Your task to perform on an android device: What's the price of the Galaxy phone? Image 0: 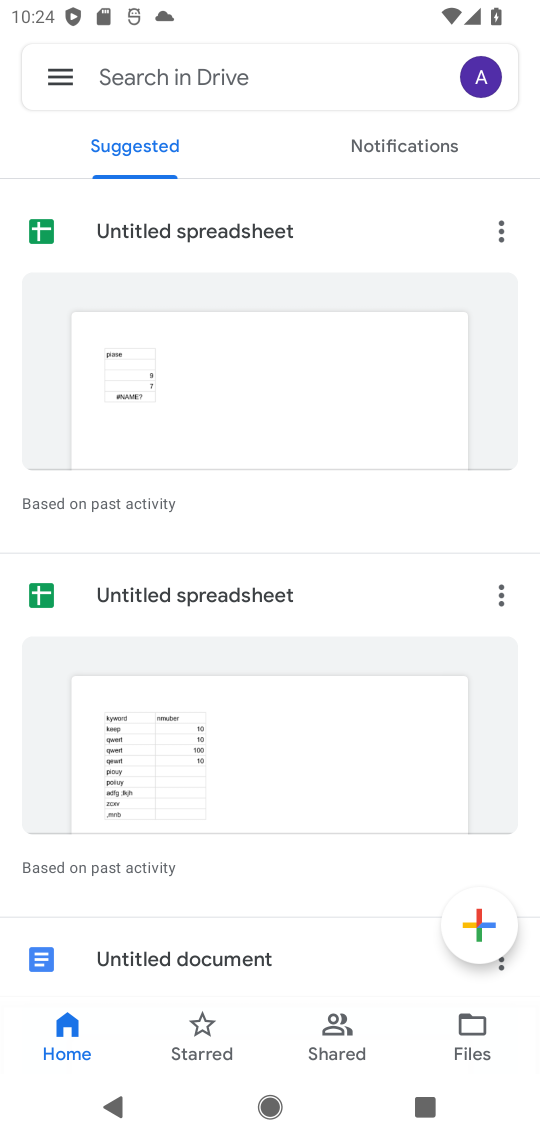
Step 0: press home button
Your task to perform on an android device: What's the price of the Galaxy phone? Image 1: 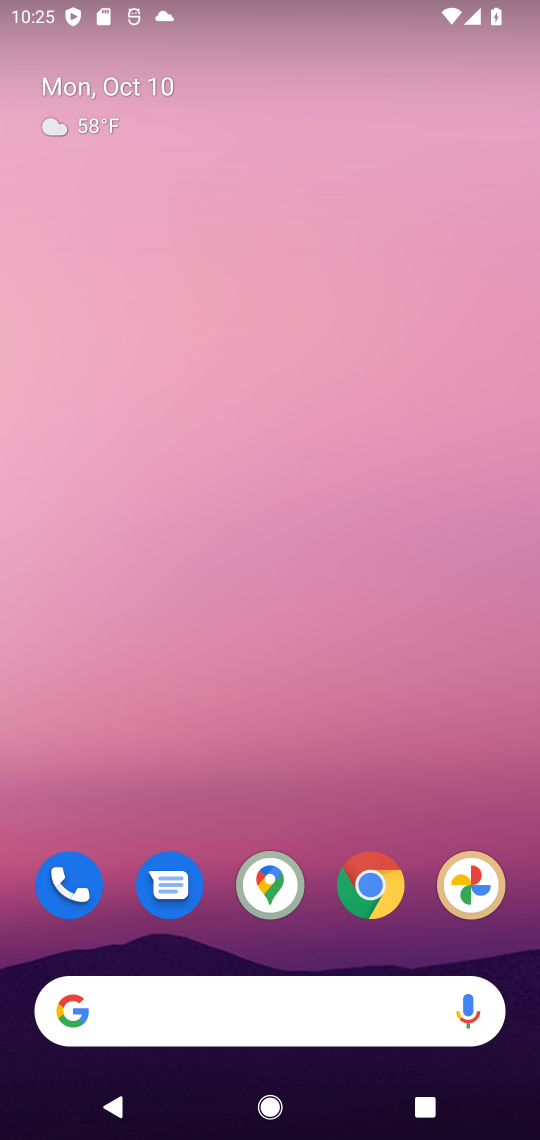
Step 1: click (365, 884)
Your task to perform on an android device: What's the price of the Galaxy phone? Image 2: 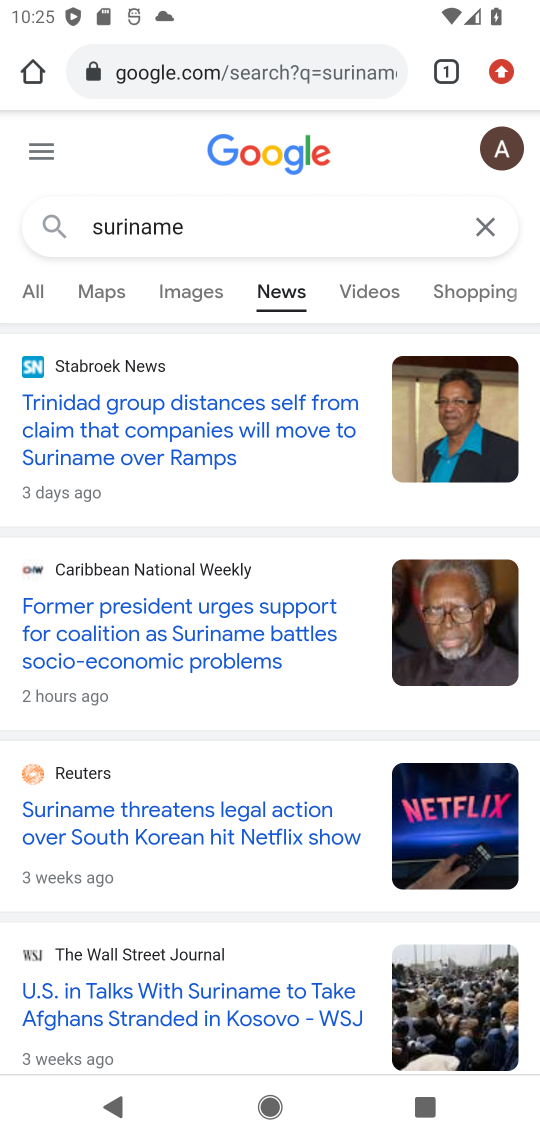
Step 2: click (197, 60)
Your task to perform on an android device: What's the price of the Galaxy phone? Image 3: 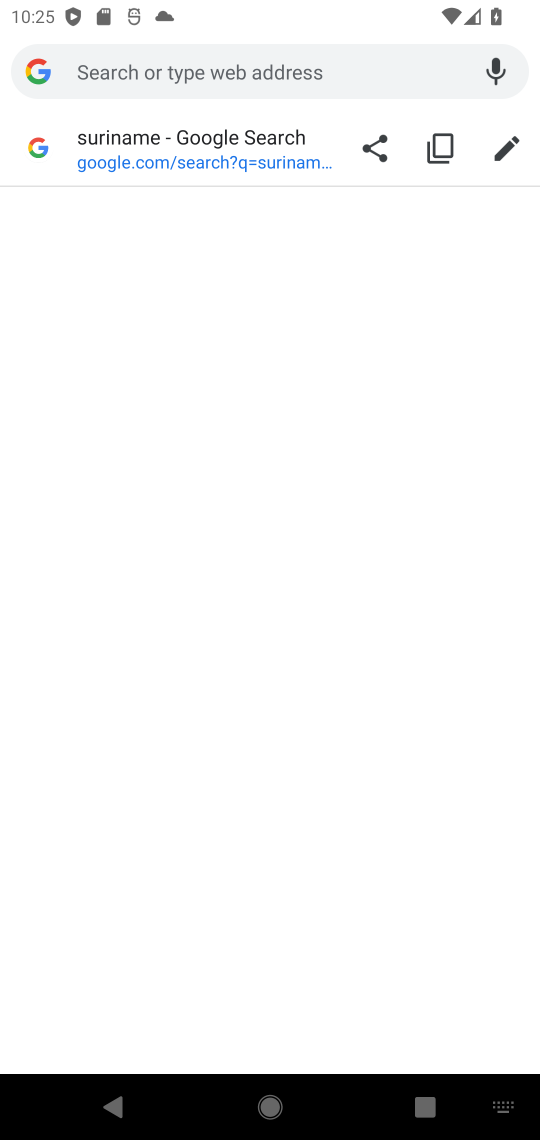
Step 3: type "price of the galaxy phone"
Your task to perform on an android device: What's the price of the Galaxy phone? Image 4: 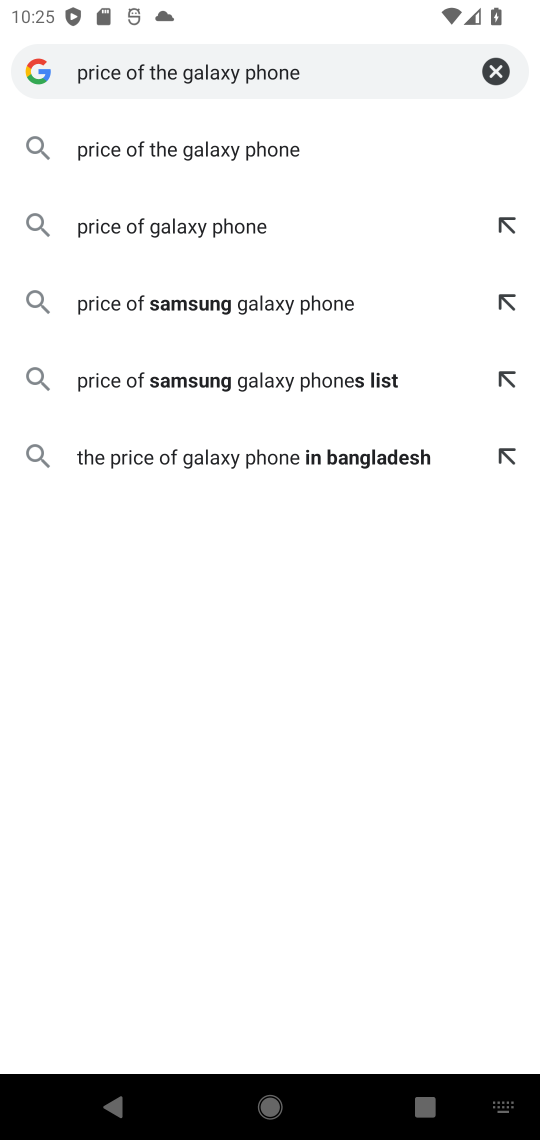
Step 4: click (230, 144)
Your task to perform on an android device: What's the price of the Galaxy phone? Image 5: 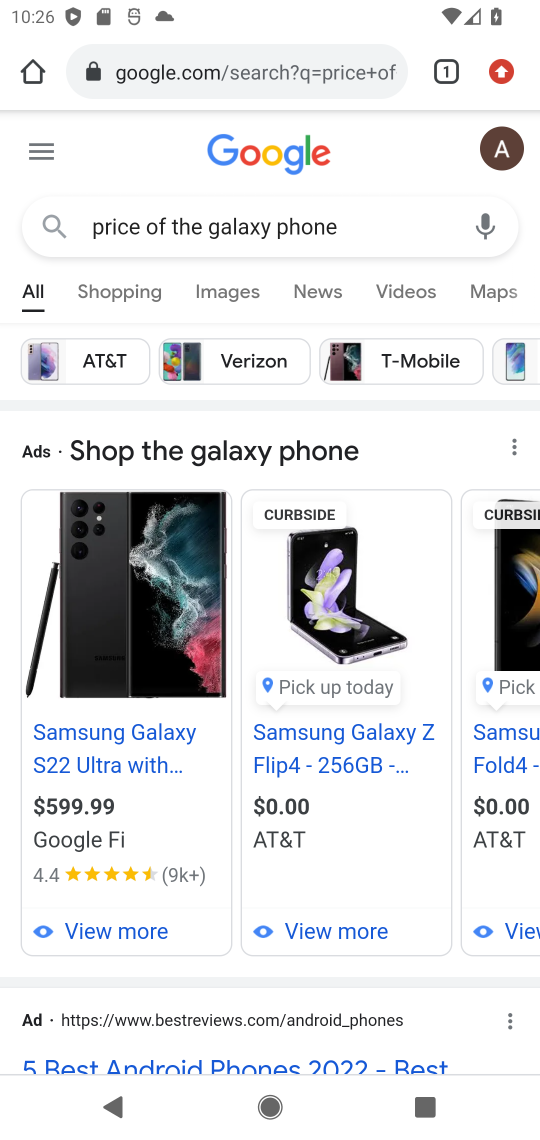
Step 5: task complete